Your task to perform on an android device: move an email to a new category in the gmail app Image 0: 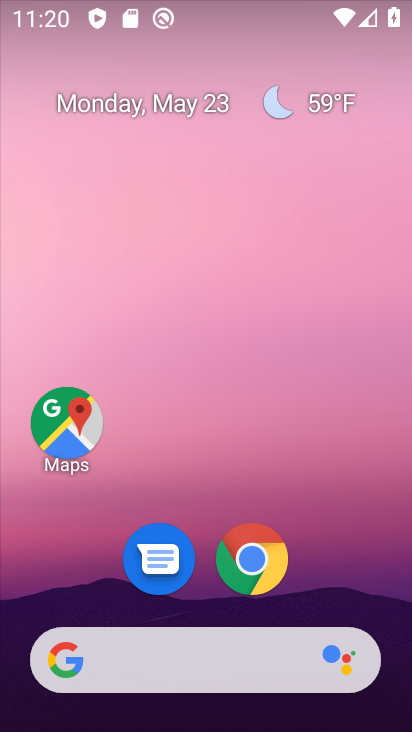
Step 0: drag from (384, 612) to (321, 88)
Your task to perform on an android device: move an email to a new category in the gmail app Image 1: 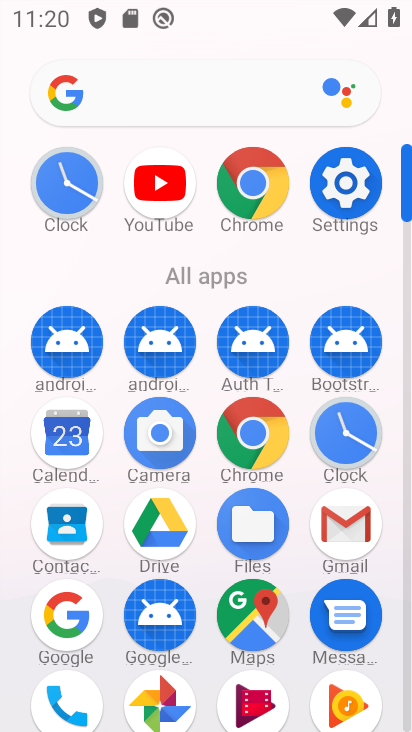
Step 1: click (332, 533)
Your task to perform on an android device: move an email to a new category in the gmail app Image 2: 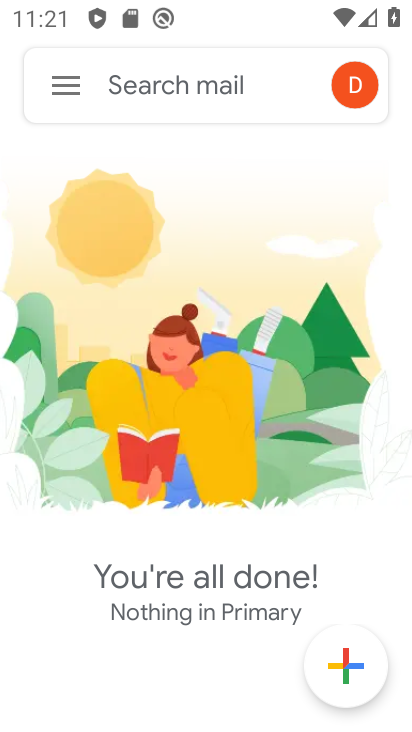
Step 2: task complete